Your task to perform on an android device: toggle wifi Image 0: 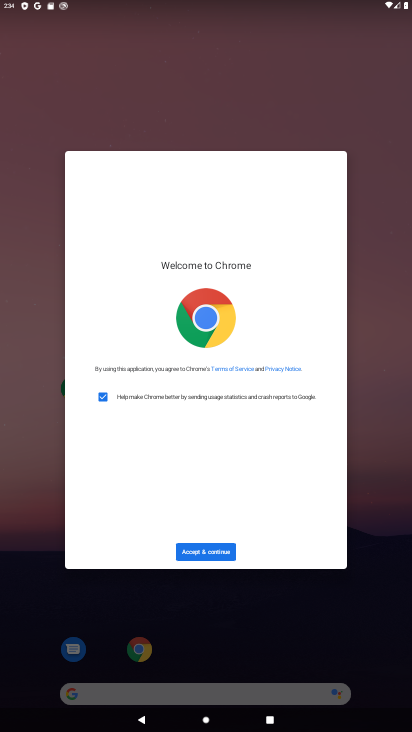
Step 0: press home button
Your task to perform on an android device: toggle wifi Image 1: 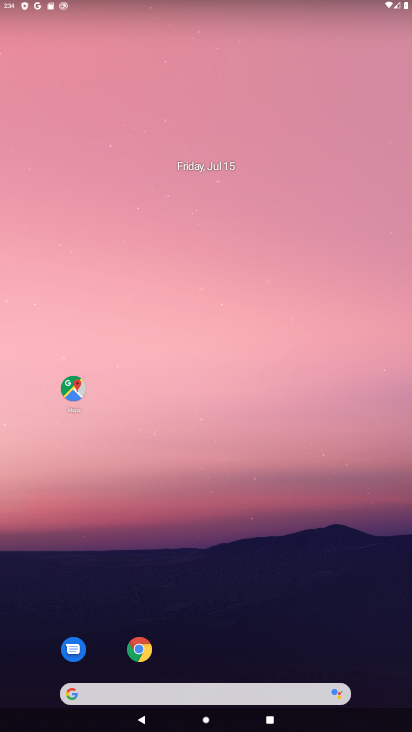
Step 1: drag from (226, 665) to (299, 185)
Your task to perform on an android device: toggle wifi Image 2: 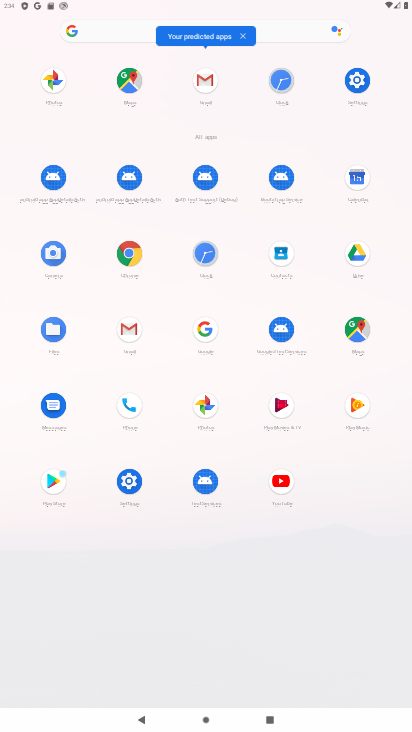
Step 2: click (129, 488)
Your task to perform on an android device: toggle wifi Image 3: 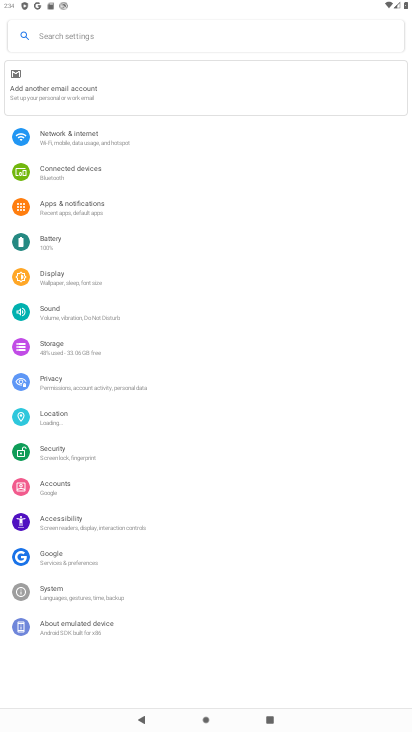
Step 3: click (128, 139)
Your task to perform on an android device: toggle wifi Image 4: 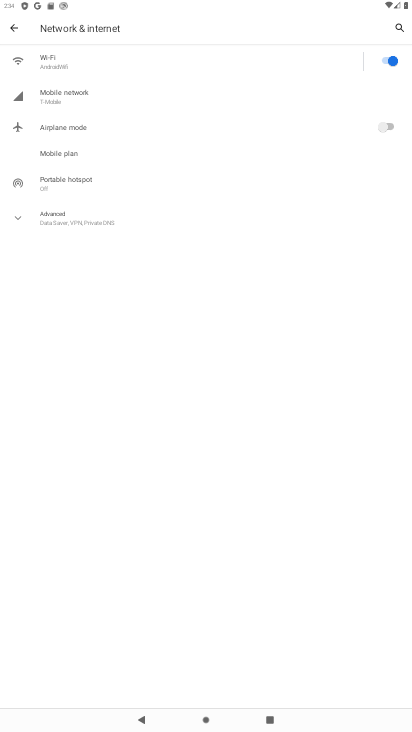
Step 4: click (379, 56)
Your task to perform on an android device: toggle wifi Image 5: 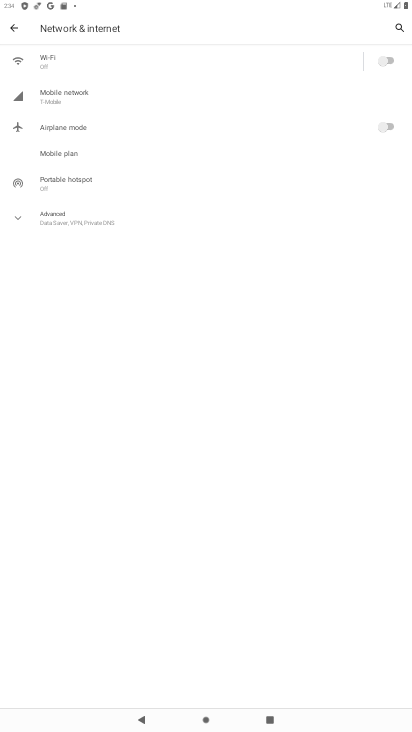
Step 5: task complete